Your task to perform on an android device: open app "Spotify: Music and Podcasts" (install if not already installed) and go to login screen Image 0: 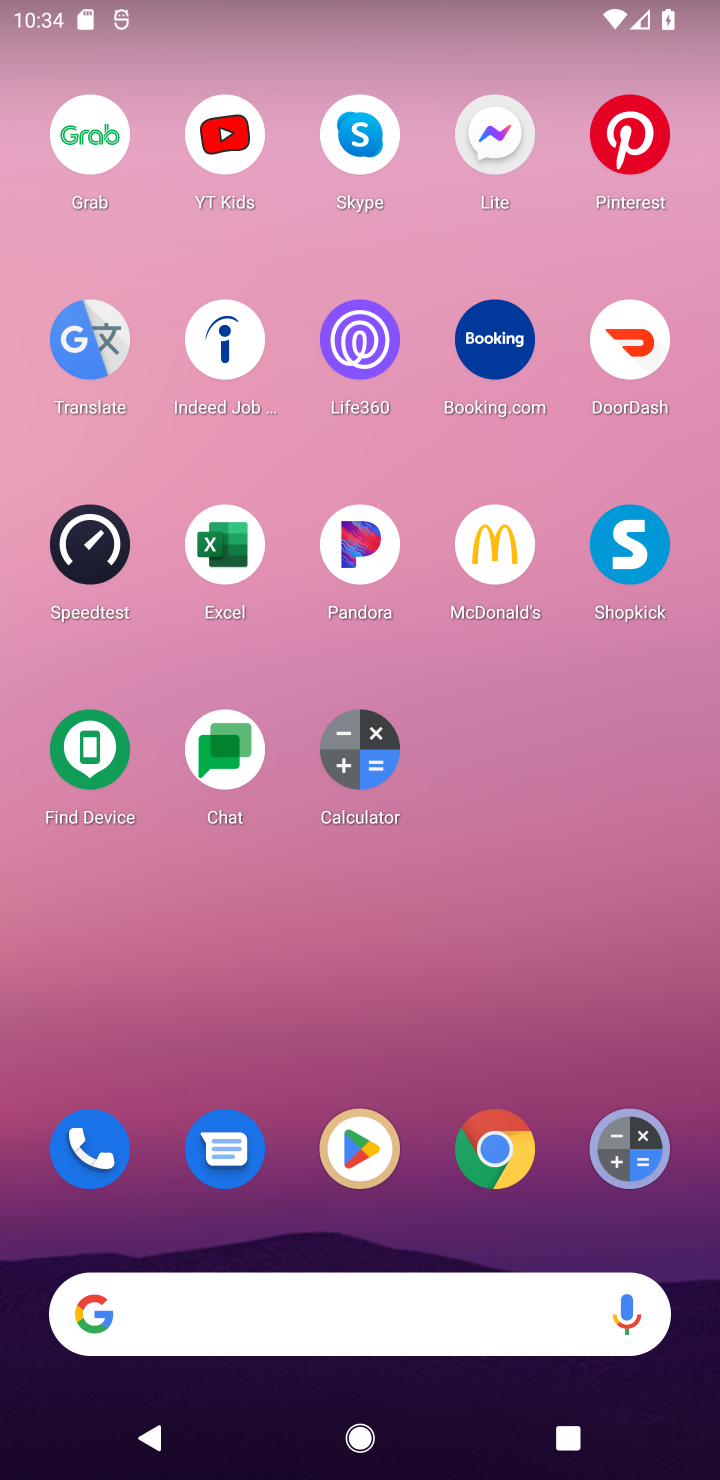
Step 0: click (365, 1160)
Your task to perform on an android device: open app "Spotify: Music and Podcasts" (install if not already installed) and go to login screen Image 1: 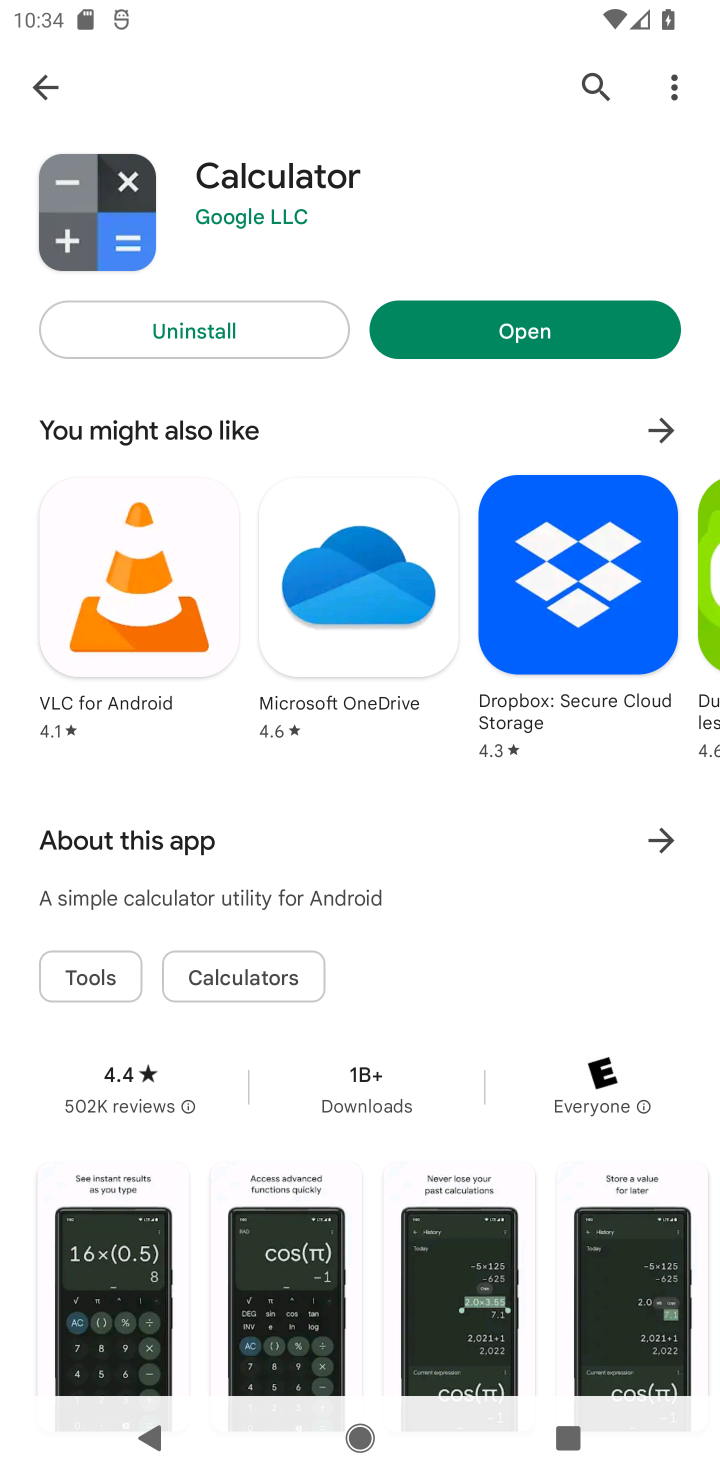
Step 1: click (601, 98)
Your task to perform on an android device: open app "Spotify: Music and Podcasts" (install if not already installed) and go to login screen Image 2: 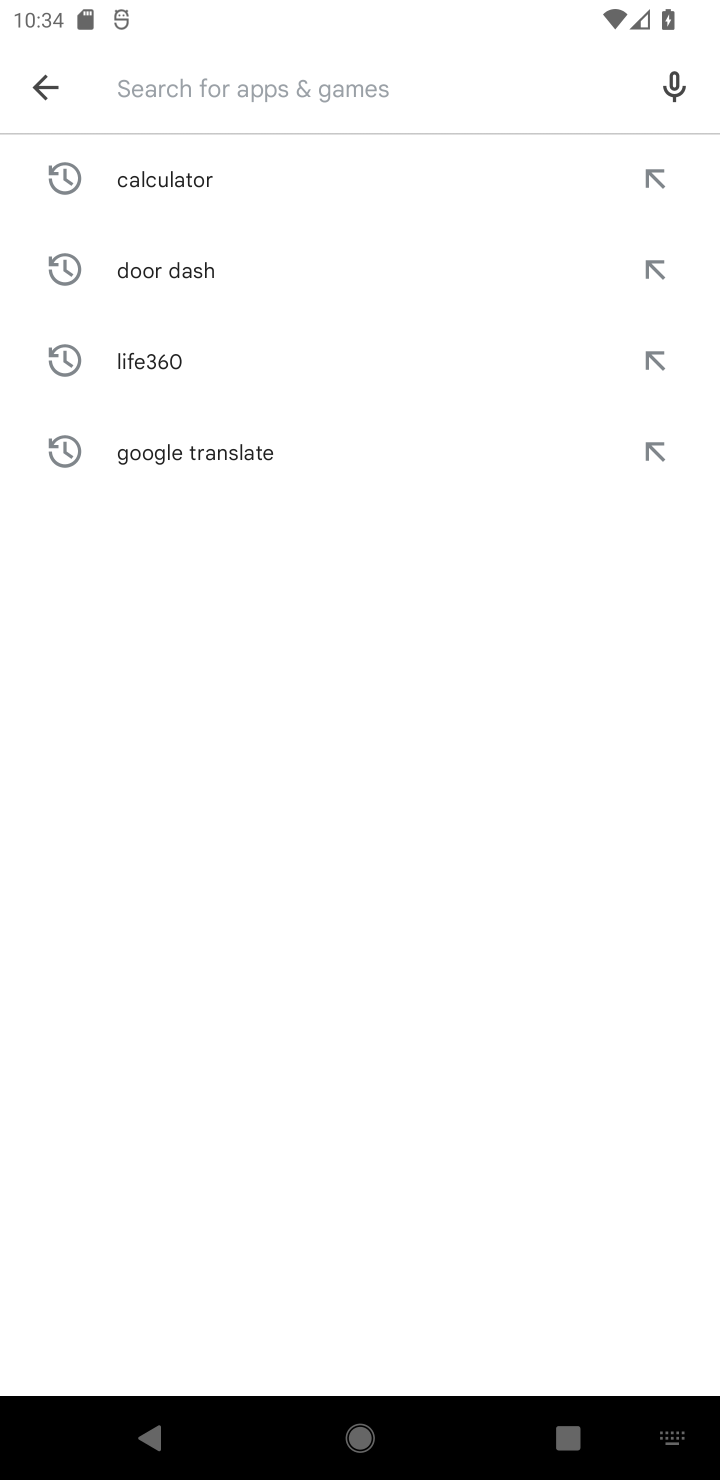
Step 2: type "spotify"
Your task to perform on an android device: open app "Spotify: Music and Podcasts" (install if not already installed) and go to login screen Image 3: 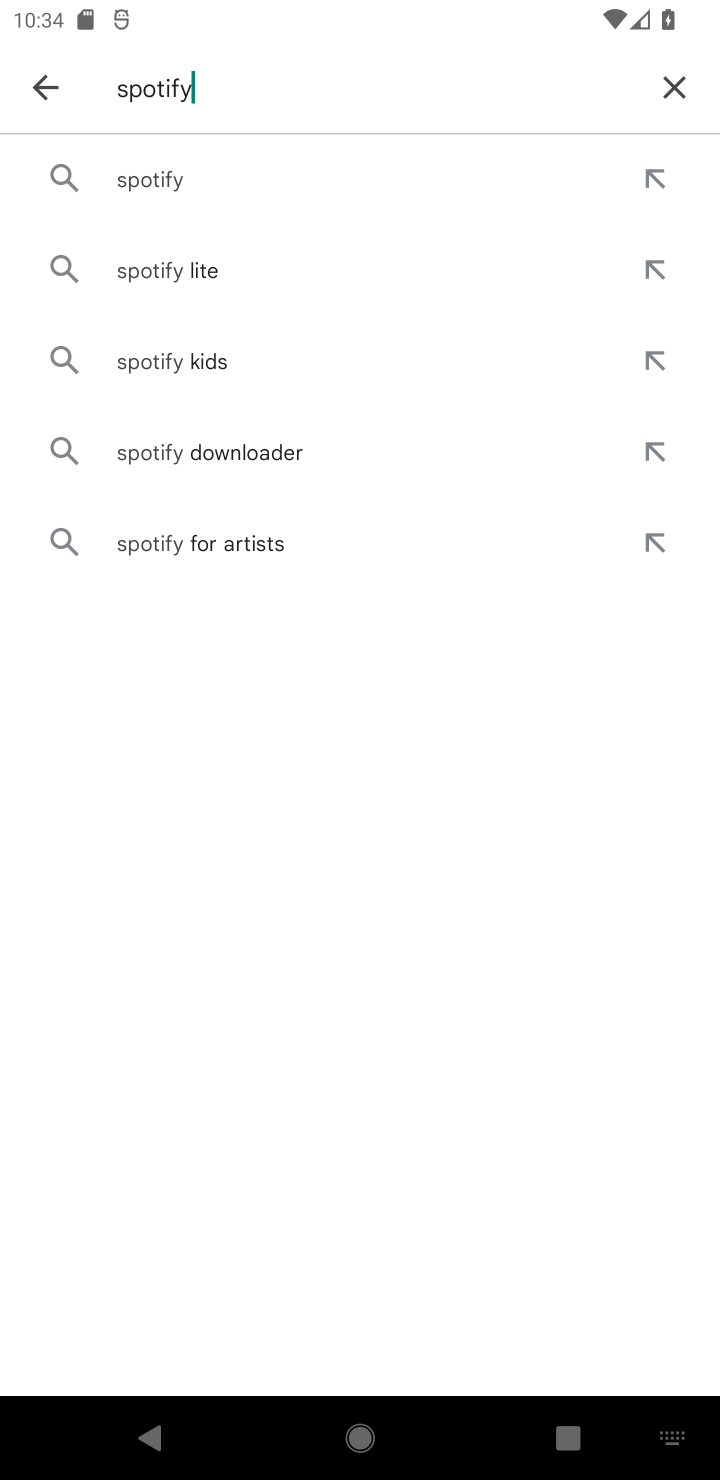
Step 3: click (336, 191)
Your task to perform on an android device: open app "Spotify: Music and Podcasts" (install if not already installed) and go to login screen Image 4: 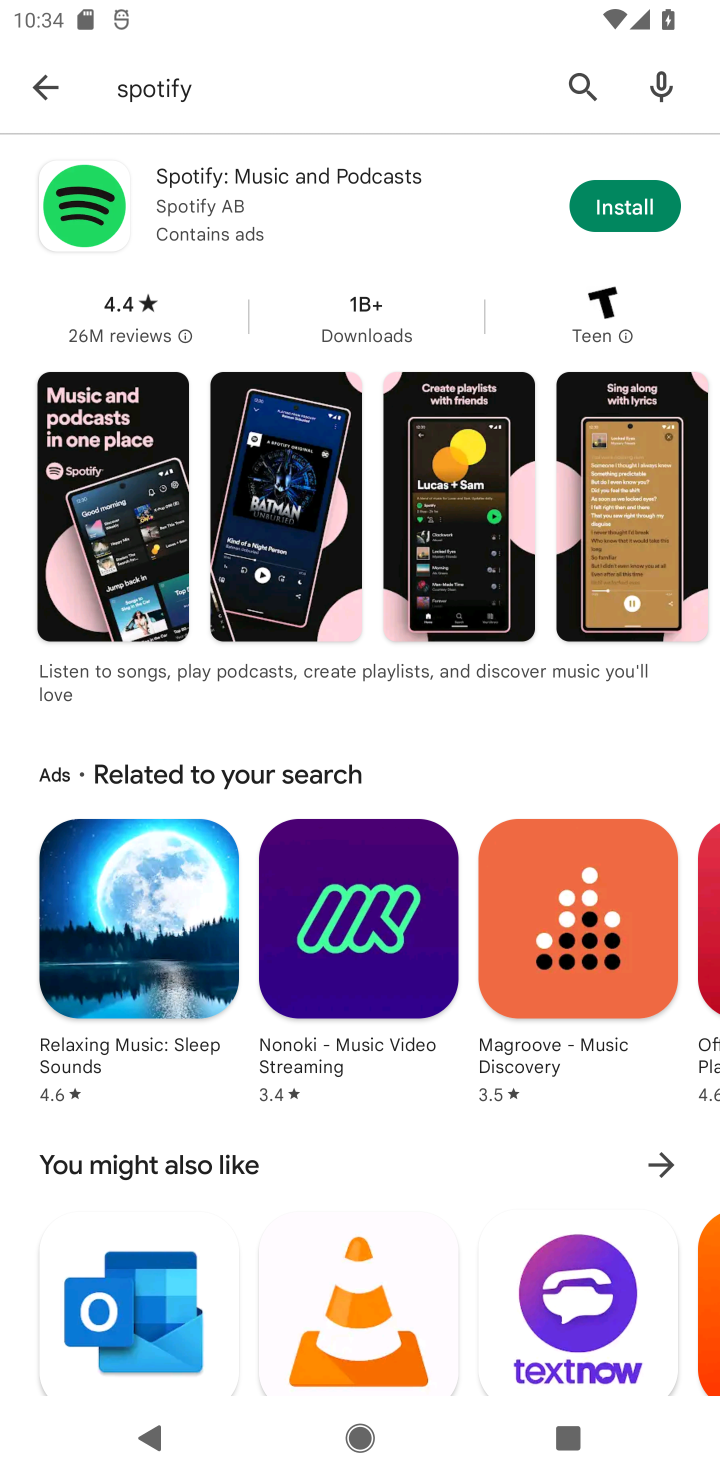
Step 4: click (587, 217)
Your task to perform on an android device: open app "Spotify: Music and Podcasts" (install if not already installed) and go to login screen Image 5: 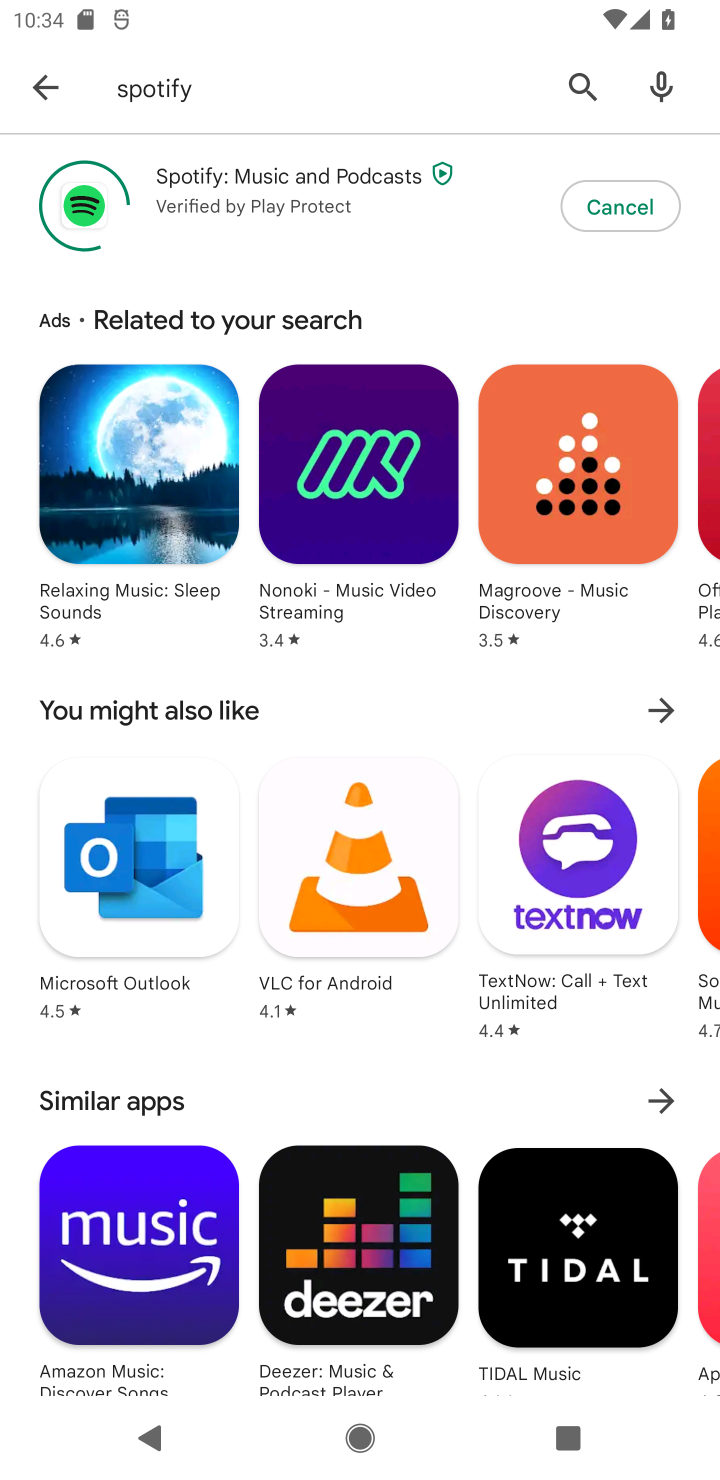
Step 5: task complete